Your task to perform on an android device: toggle sleep mode Image 0: 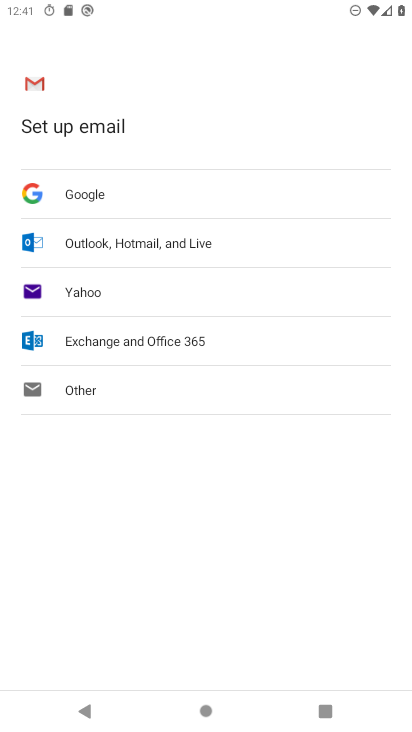
Step 0: press home button
Your task to perform on an android device: toggle sleep mode Image 1: 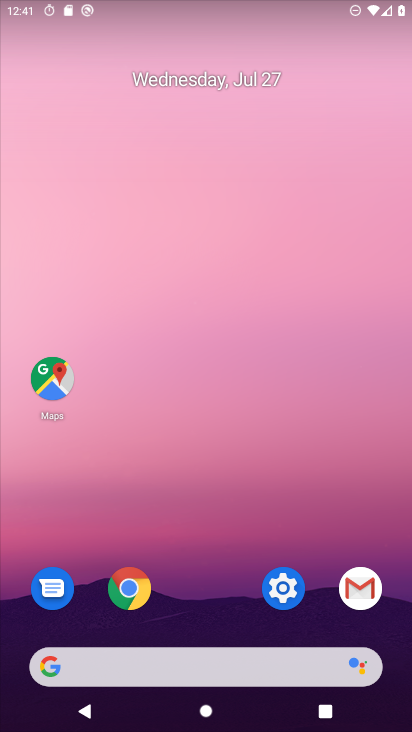
Step 1: click (278, 582)
Your task to perform on an android device: toggle sleep mode Image 2: 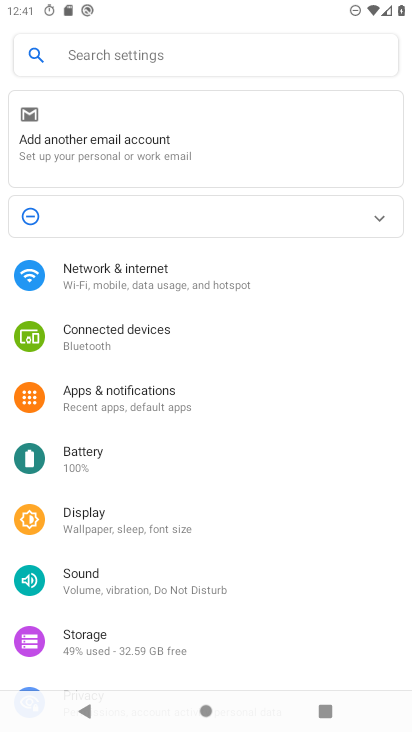
Step 2: click (122, 55)
Your task to perform on an android device: toggle sleep mode Image 3: 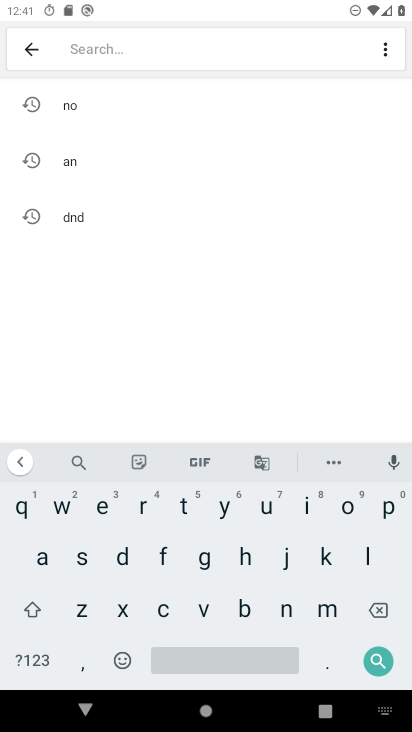
Step 3: click (75, 556)
Your task to perform on an android device: toggle sleep mode Image 4: 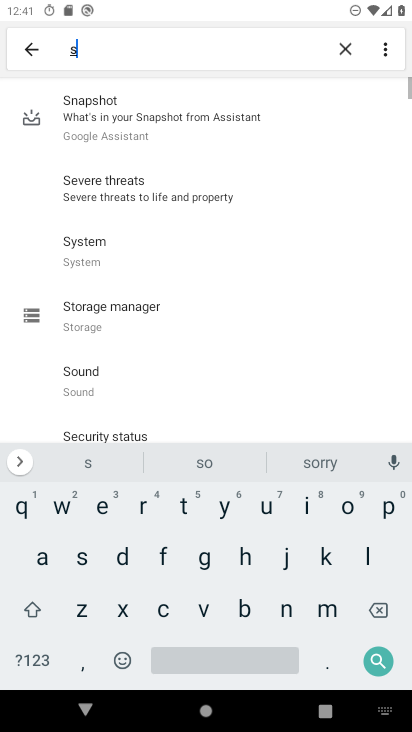
Step 4: click (372, 562)
Your task to perform on an android device: toggle sleep mode Image 5: 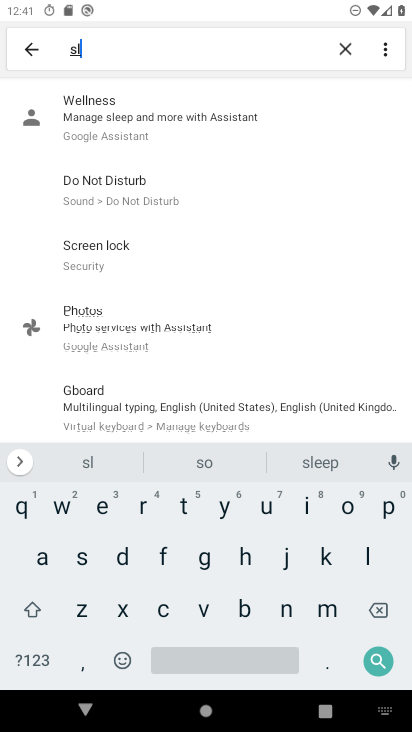
Step 5: click (108, 200)
Your task to perform on an android device: toggle sleep mode Image 6: 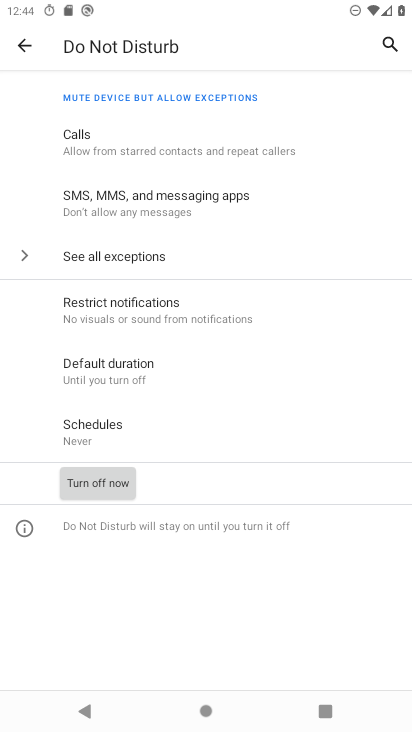
Step 6: task complete